Your task to perform on an android device: Check the news Image 0: 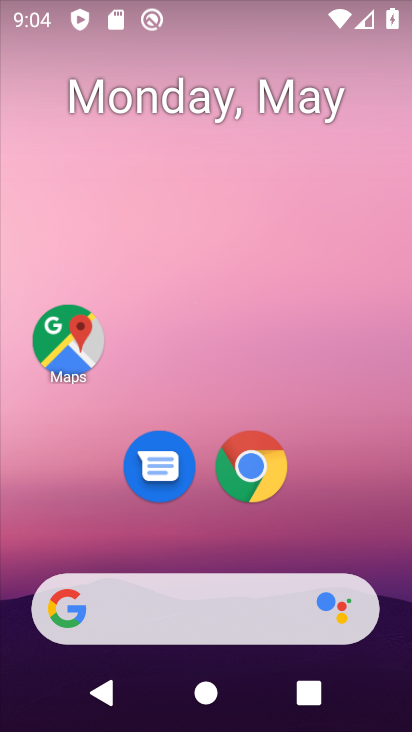
Step 0: drag from (333, 514) to (301, 0)
Your task to perform on an android device: Check the news Image 1: 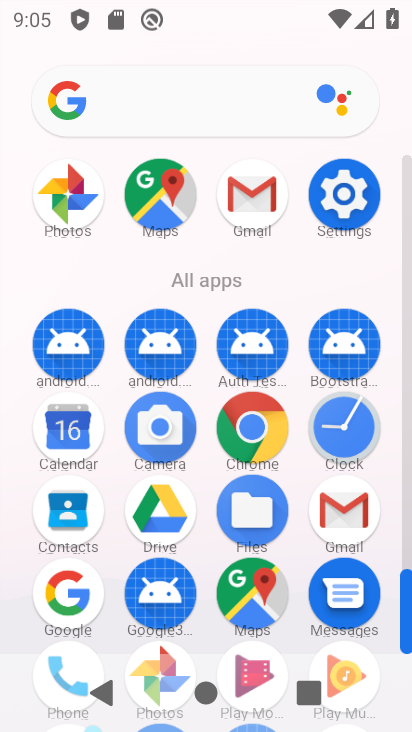
Step 1: click (150, 107)
Your task to perform on an android device: Check the news Image 2: 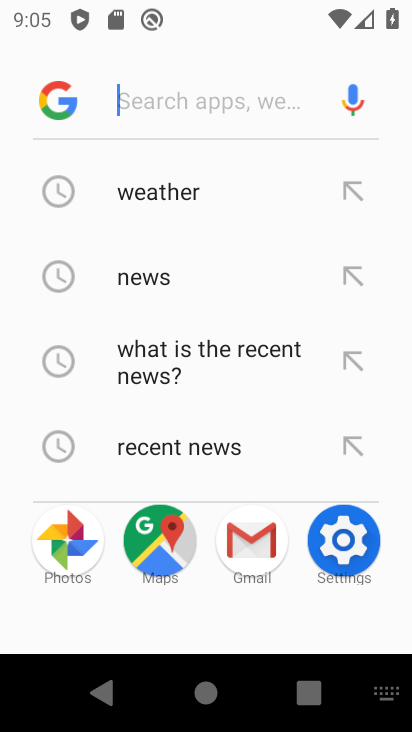
Step 2: type "news"
Your task to perform on an android device: Check the news Image 3: 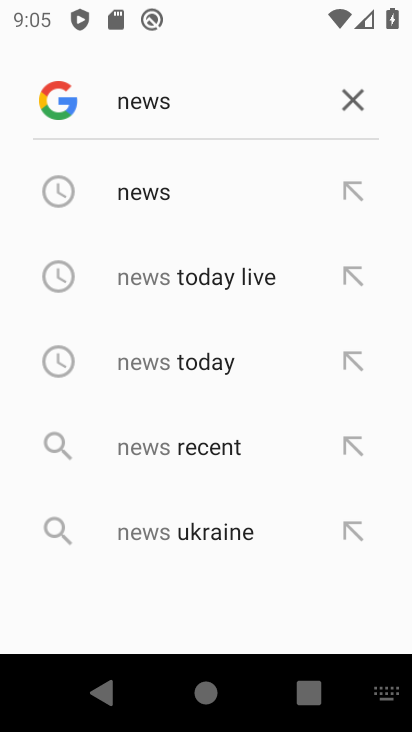
Step 3: click (188, 201)
Your task to perform on an android device: Check the news Image 4: 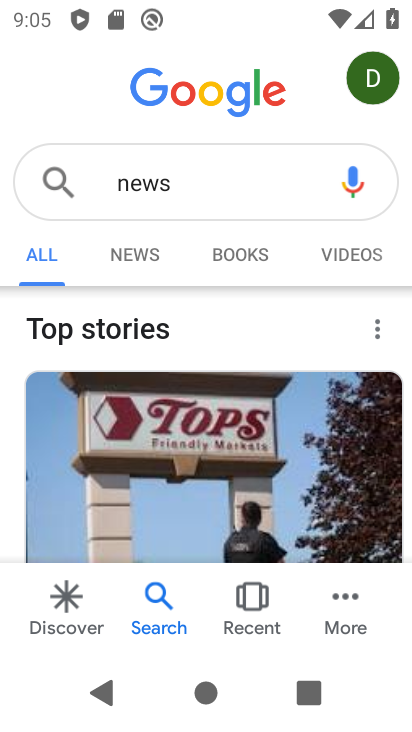
Step 4: click (135, 256)
Your task to perform on an android device: Check the news Image 5: 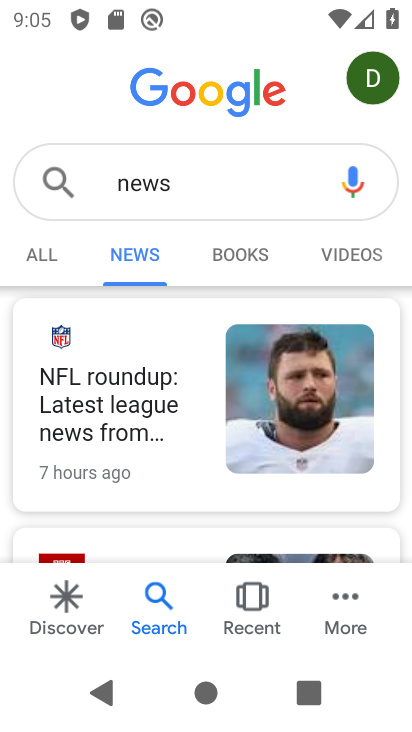
Step 5: task complete